Your task to perform on an android device: Toggle the flashlight Image 0: 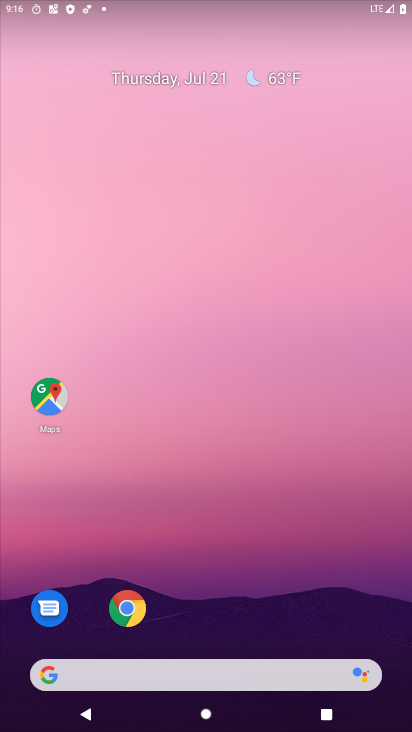
Step 0: drag from (225, 616) to (220, 207)
Your task to perform on an android device: Toggle the flashlight Image 1: 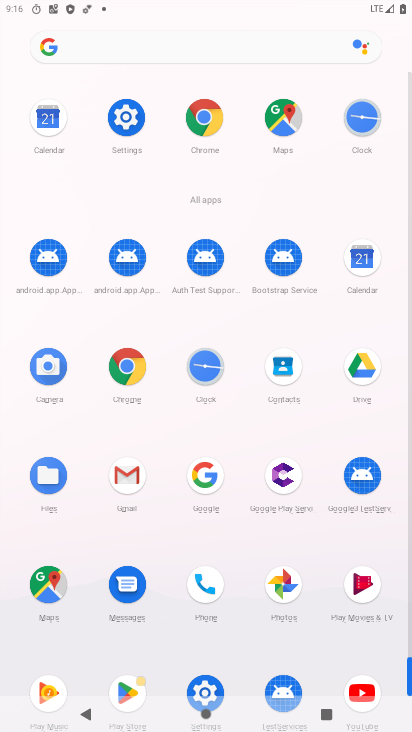
Step 1: task complete